Your task to perform on an android device: Open battery settings Image 0: 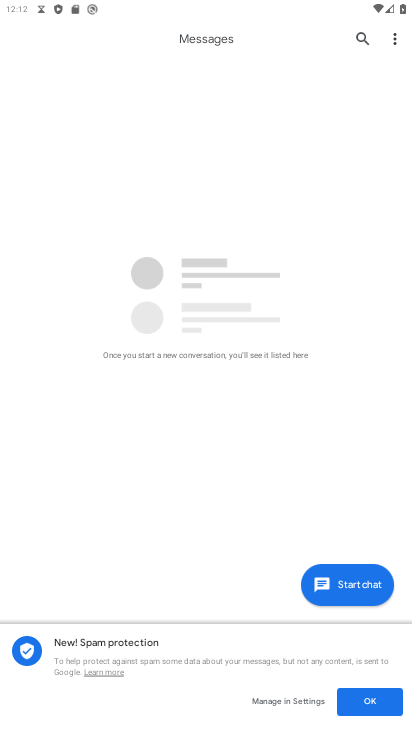
Step 0: press home button
Your task to perform on an android device: Open battery settings Image 1: 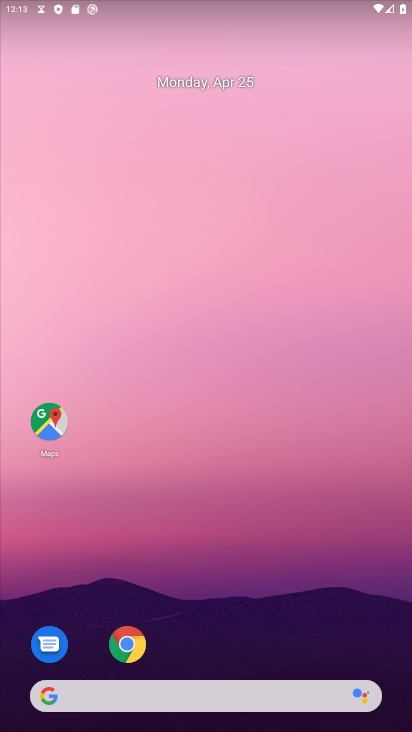
Step 1: drag from (312, 627) to (320, 7)
Your task to perform on an android device: Open battery settings Image 2: 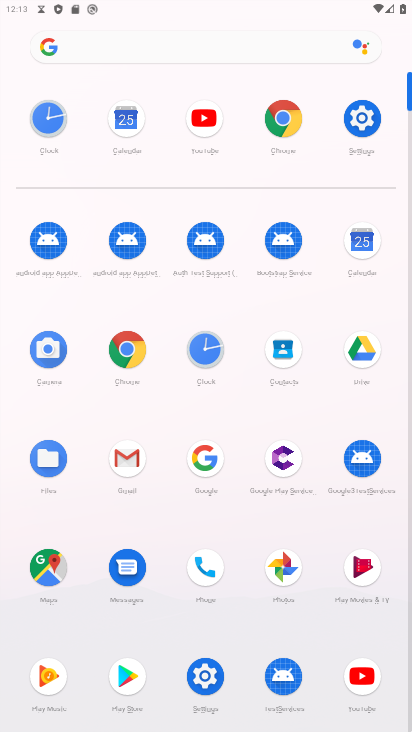
Step 2: click (357, 120)
Your task to perform on an android device: Open battery settings Image 3: 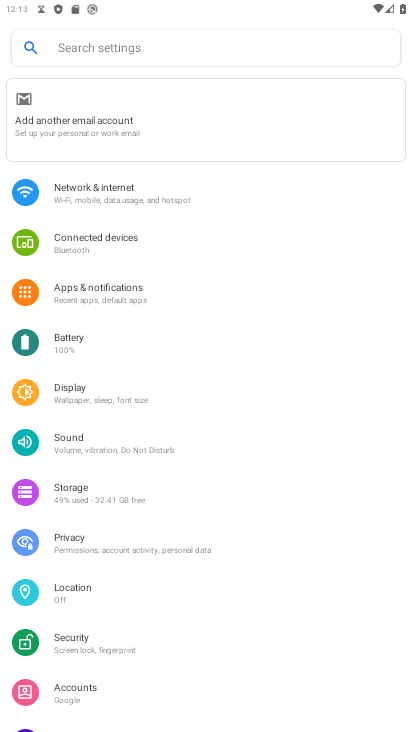
Step 3: click (65, 356)
Your task to perform on an android device: Open battery settings Image 4: 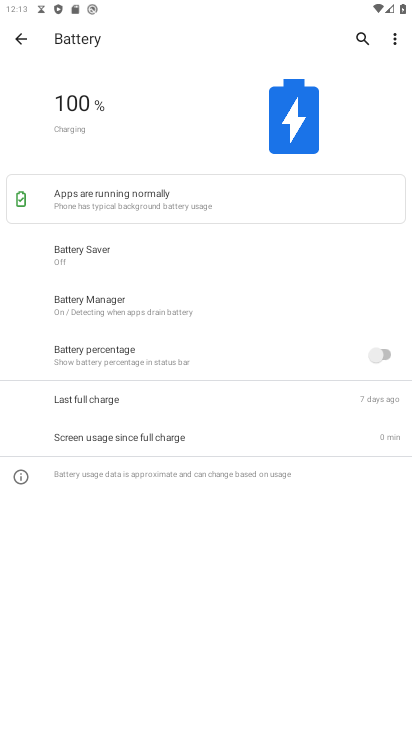
Step 4: task complete